Your task to perform on an android device: open a bookmark in the chrome app Image 0: 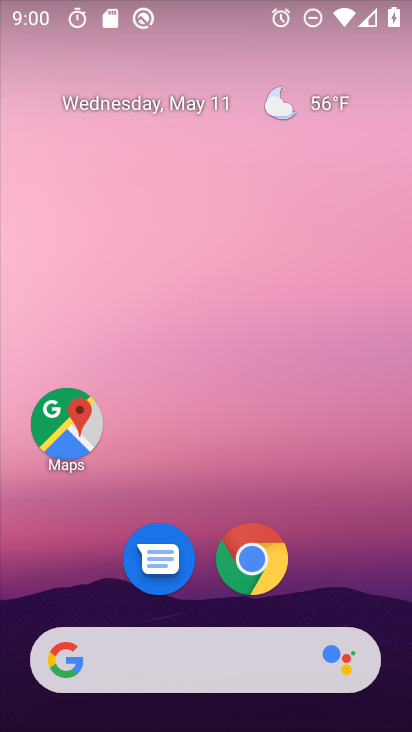
Step 0: click (245, 567)
Your task to perform on an android device: open a bookmark in the chrome app Image 1: 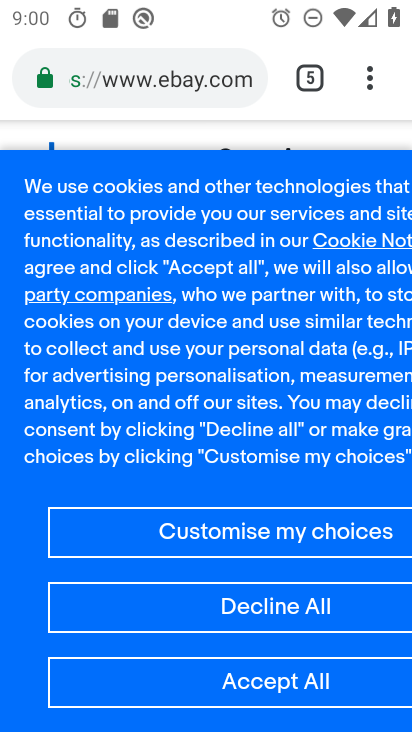
Step 1: click (379, 77)
Your task to perform on an android device: open a bookmark in the chrome app Image 2: 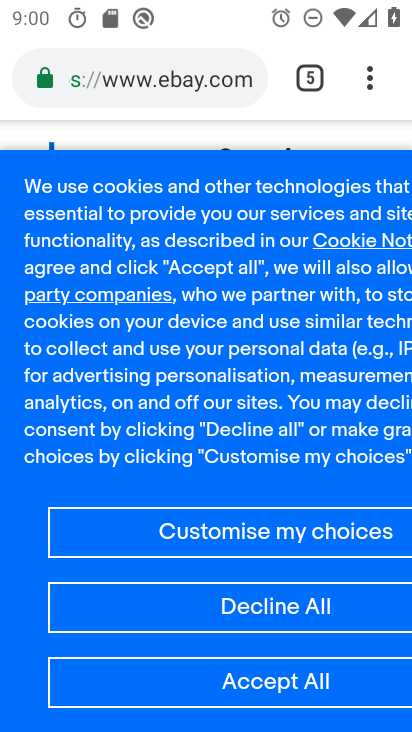
Step 2: click (379, 77)
Your task to perform on an android device: open a bookmark in the chrome app Image 3: 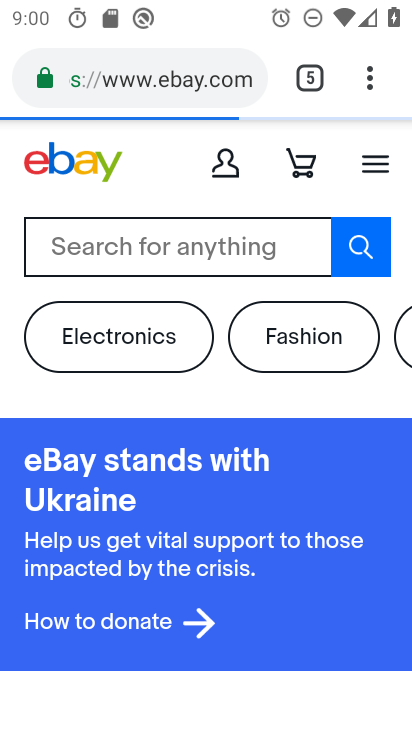
Step 3: click (379, 77)
Your task to perform on an android device: open a bookmark in the chrome app Image 4: 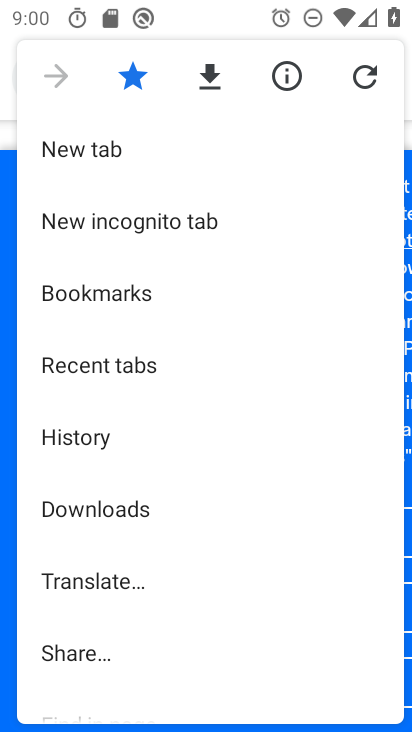
Step 4: drag from (128, 570) to (160, 212)
Your task to perform on an android device: open a bookmark in the chrome app Image 5: 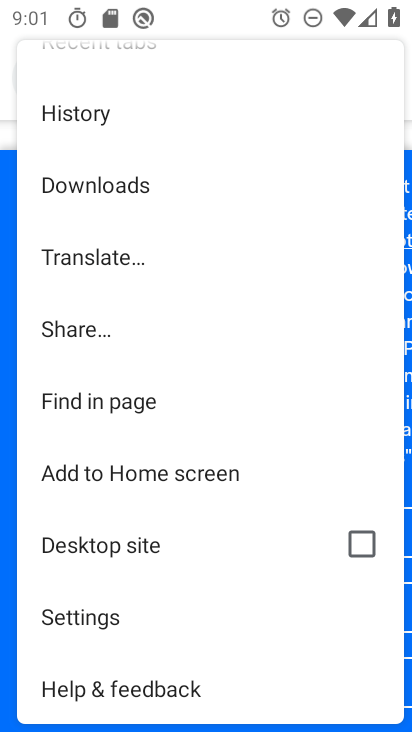
Step 5: drag from (177, 188) to (189, 485)
Your task to perform on an android device: open a bookmark in the chrome app Image 6: 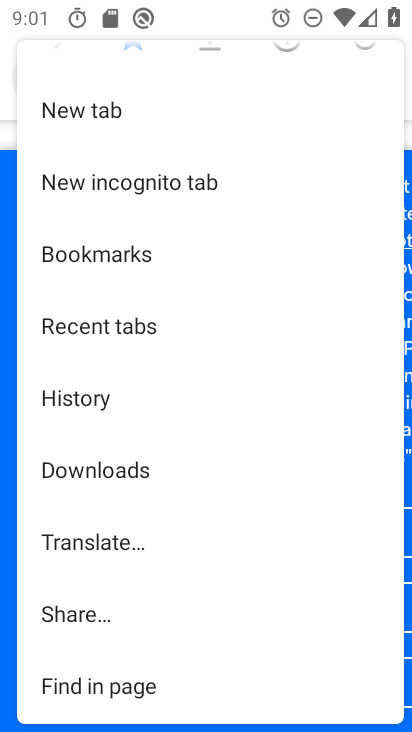
Step 6: click (128, 251)
Your task to perform on an android device: open a bookmark in the chrome app Image 7: 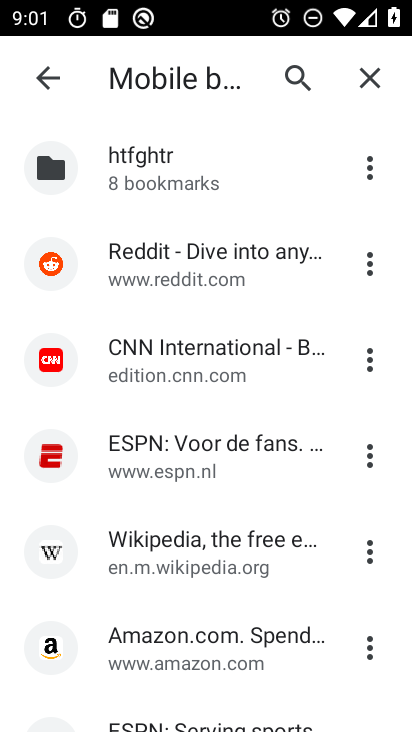
Step 7: drag from (214, 647) to (285, 218)
Your task to perform on an android device: open a bookmark in the chrome app Image 8: 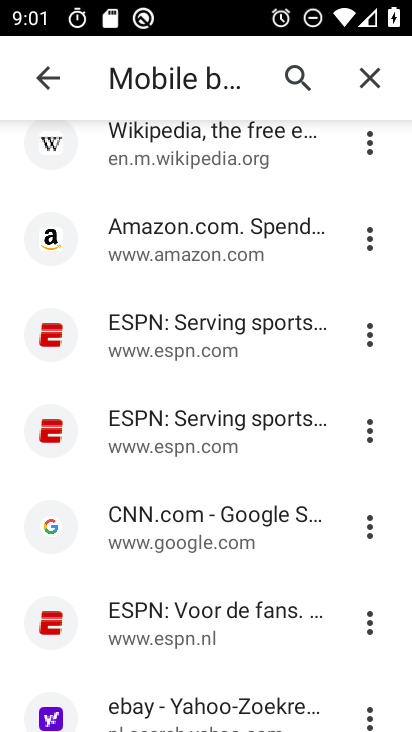
Step 8: drag from (207, 656) to (244, 315)
Your task to perform on an android device: open a bookmark in the chrome app Image 9: 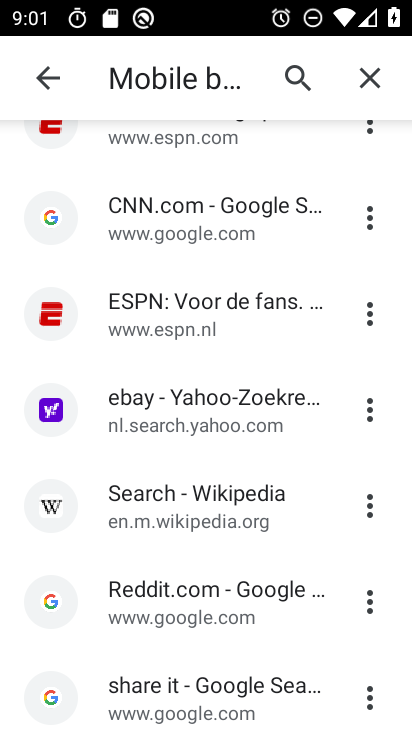
Step 9: drag from (189, 586) to (242, 264)
Your task to perform on an android device: open a bookmark in the chrome app Image 10: 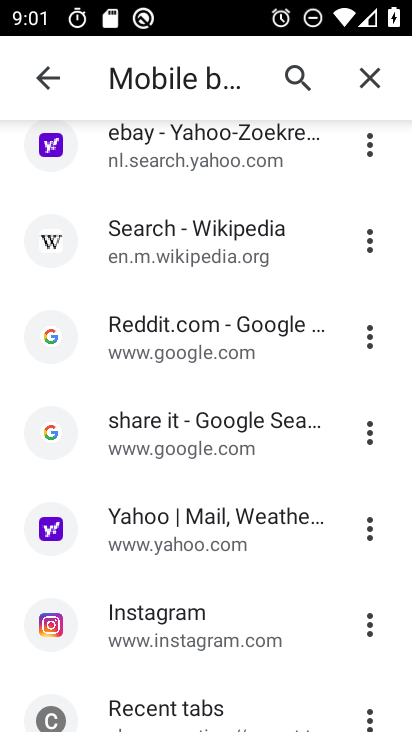
Step 10: click (151, 627)
Your task to perform on an android device: open a bookmark in the chrome app Image 11: 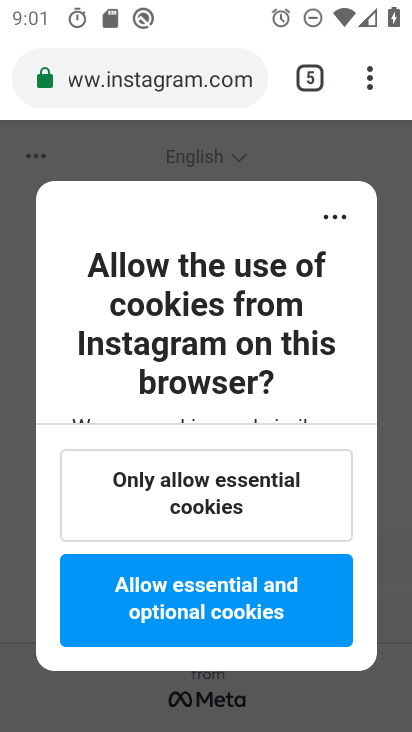
Step 11: task complete